Your task to perform on an android device: toggle sleep mode Image 0: 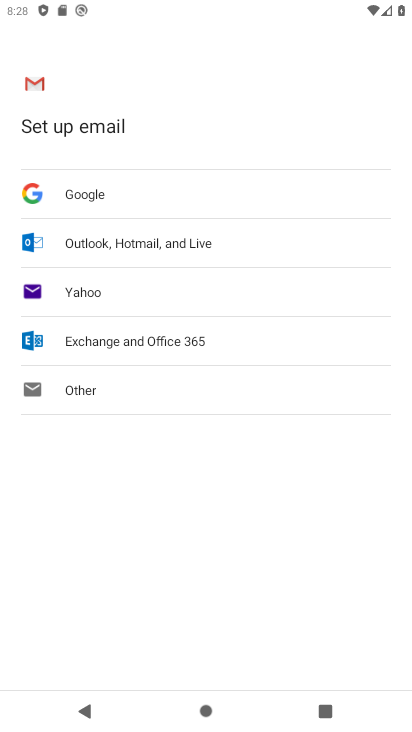
Step 0: press home button
Your task to perform on an android device: toggle sleep mode Image 1: 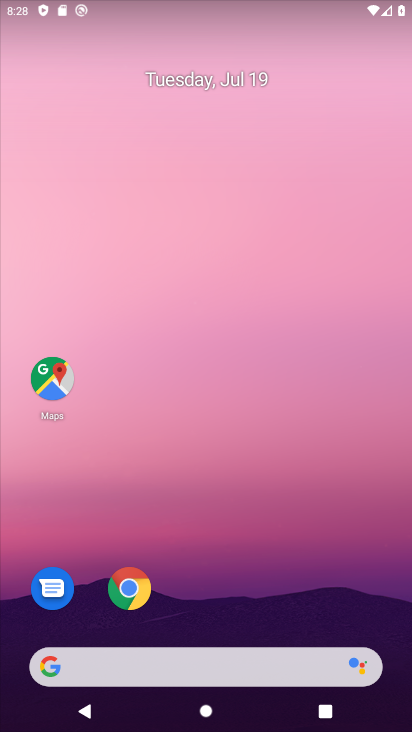
Step 1: drag from (273, 536) to (1, 311)
Your task to perform on an android device: toggle sleep mode Image 2: 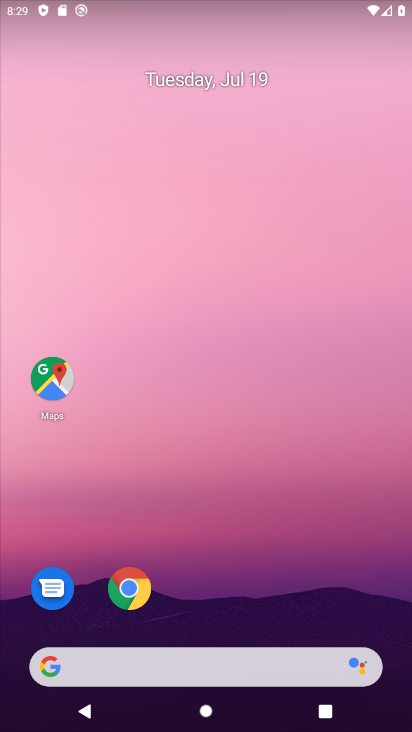
Step 2: drag from (304, 469) to (280, 18)
Your task to perform on an android device: toggle sleep mode Image 3: 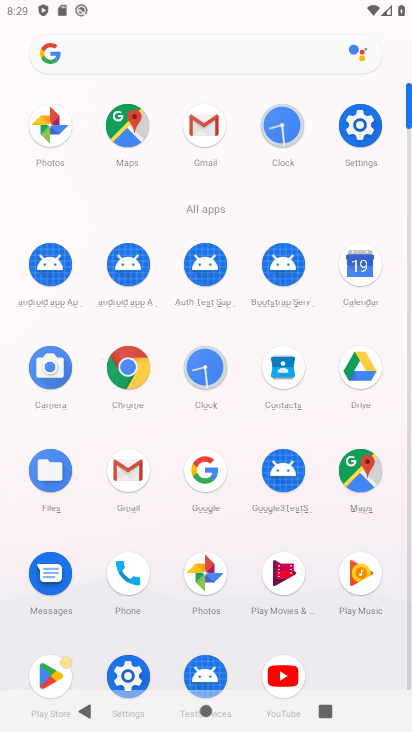
Step 3: click (376, 132)
Your task to perform on an android device: toggle sleep mode Image 4: 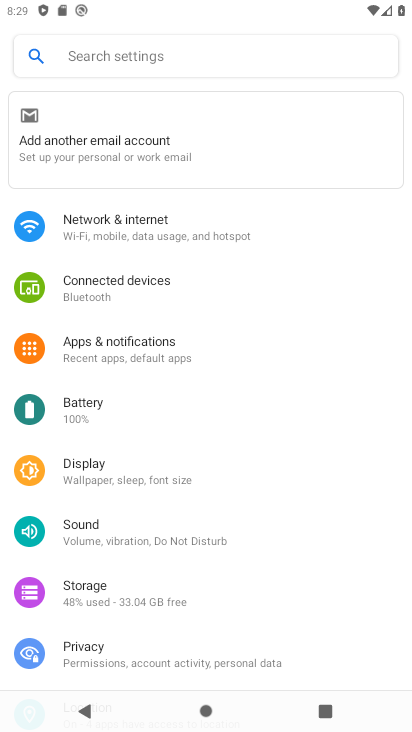
Step 4: click (109, 490)
Your task to perform on an android device: toggle sleep mode Image 5: 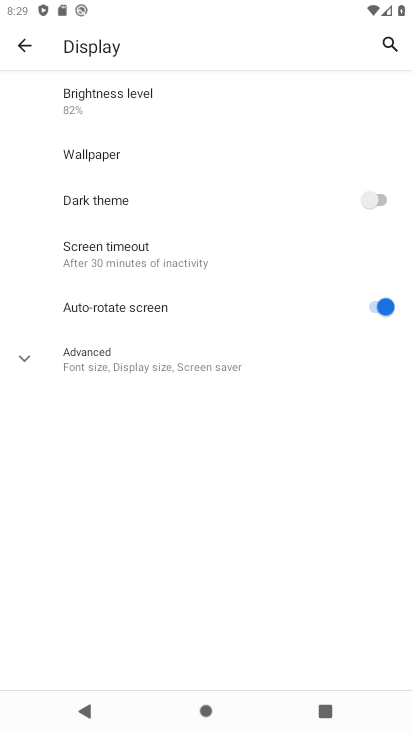
Step 5: click (106, 264)
Your task to perform on an android device: toggle sleep mode Image 6: 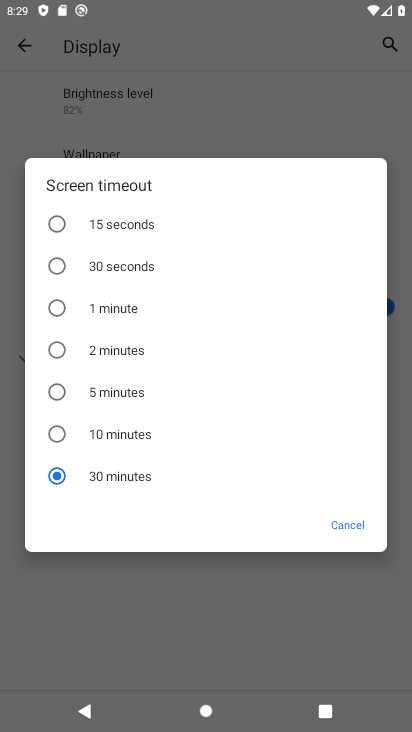
Step 6: click (58, 345)
Your task to perform on an android device: toggle sleep mode Image 7: 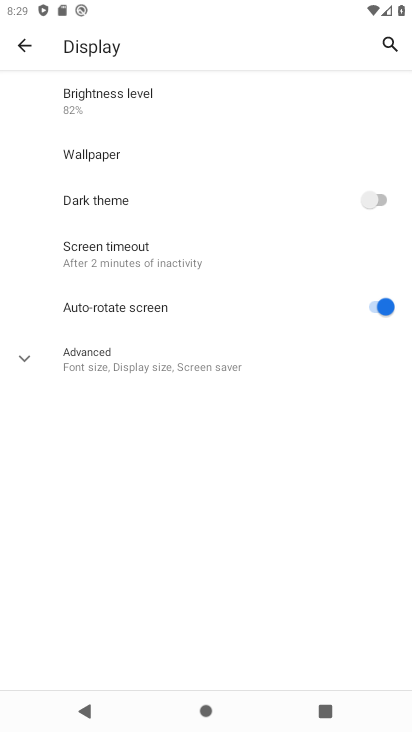
Step 7: task complete